Your task to perform on an android device: Open my contact list Image 0: 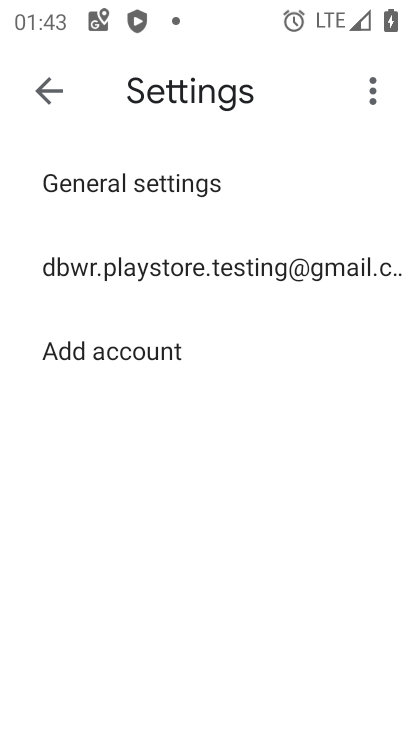
Step 0: press home button
Your task to perform on an android device: Open my contact list Image 1: 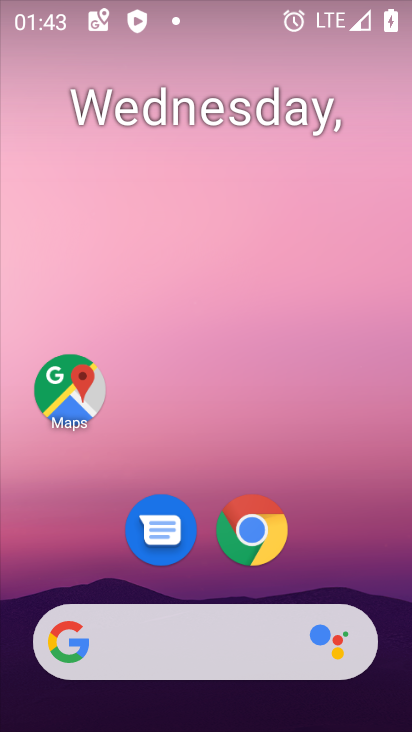
Step 1: drag from (356, 549) to (336, 224)
Your task to perform on an android device: Open my contact list Image 2: 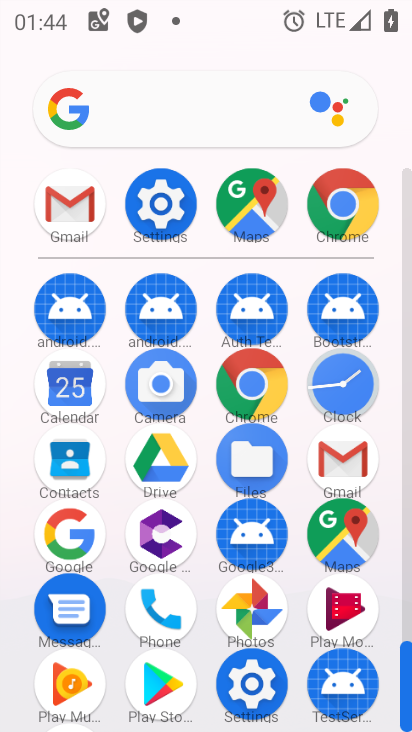
Step 2: click (64, 464)
Your task to perform on an android device: Open my contact list Image 3: 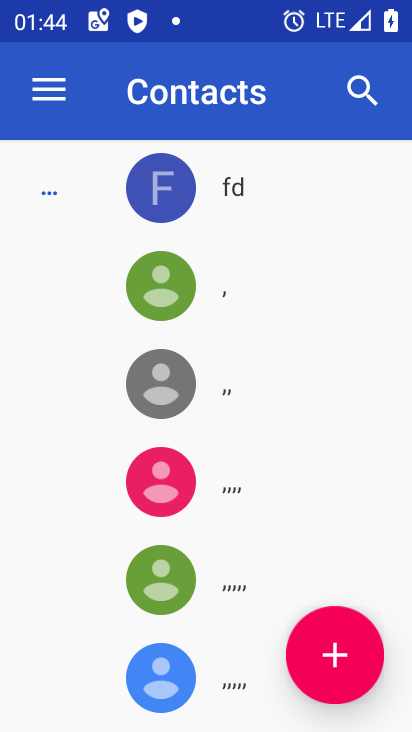
Step 3: task complete